Your task to perform on an android device: Go to privacy settings Image 0: 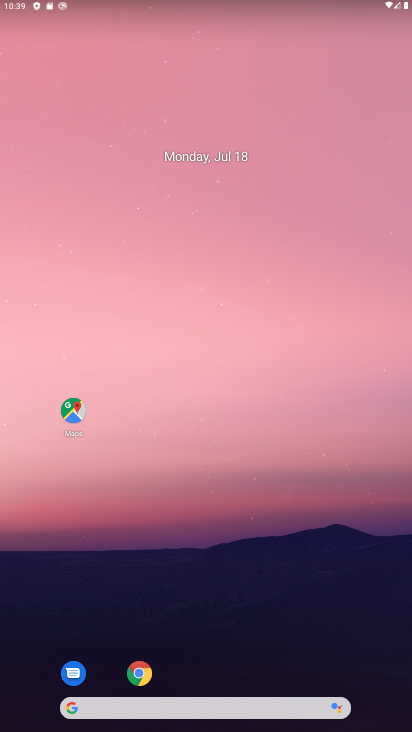
Step 0: press home button
Your task to perform on an android device: Go to privacy settings Image 1: 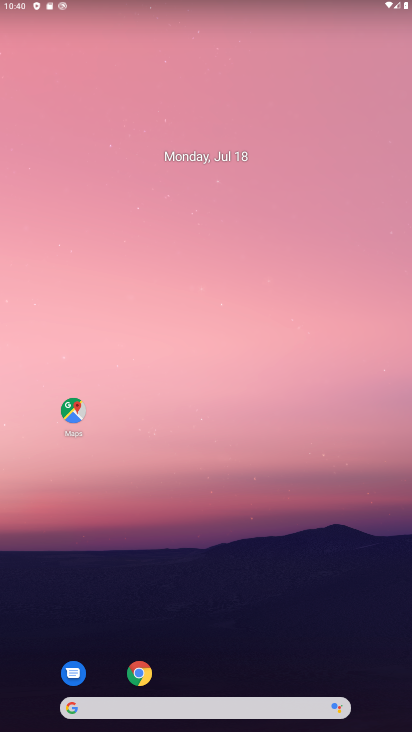
Step 1: click (228, 163)
Your task to perform on an android device: Go to privacy settings Image 2: 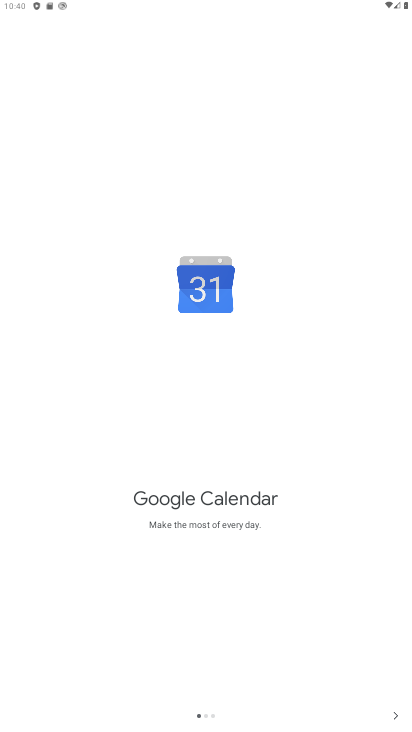
Step 2: click (397, 711)
Your task to perform on an android device: Go to privacy settings Image 3: 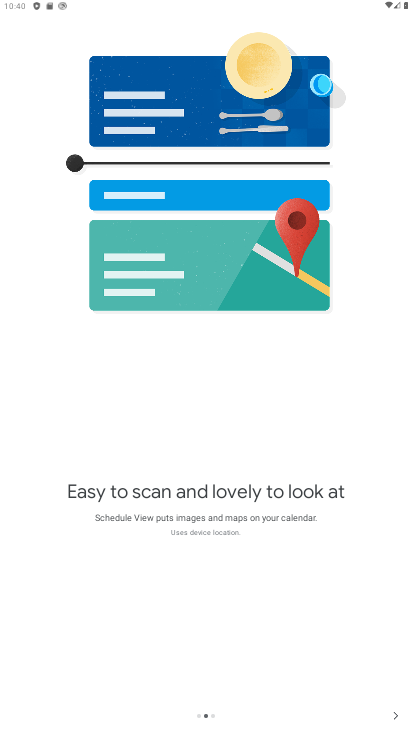
Step 3: click (389, 713)
Your task to perform on an android device: Go to privacy settings Image 4: 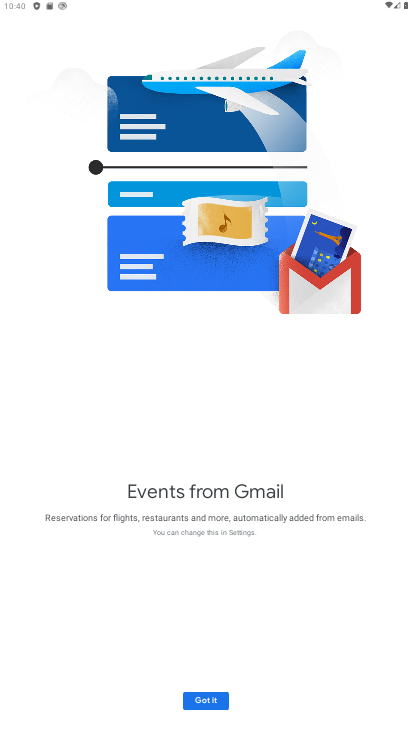
Step 4: click (202, 693)
Your task to perform on an android device: Go to privacy settings Image 5: 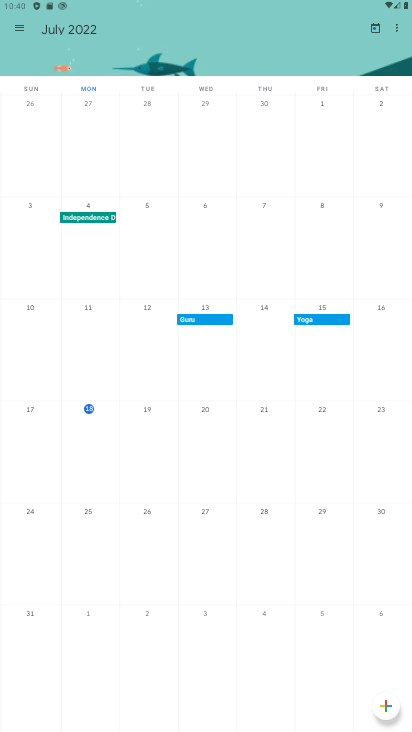
Step 5: press home button
Your task to perform on an android device: Go to privacy settings Image 6: 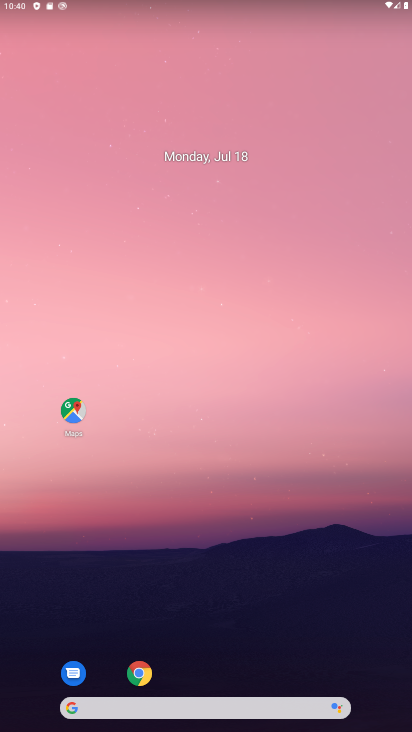
Step 6: drag from (242, 167) to (242, 74)
Your task to perform on an android device: Go to privacy settings Image 7: 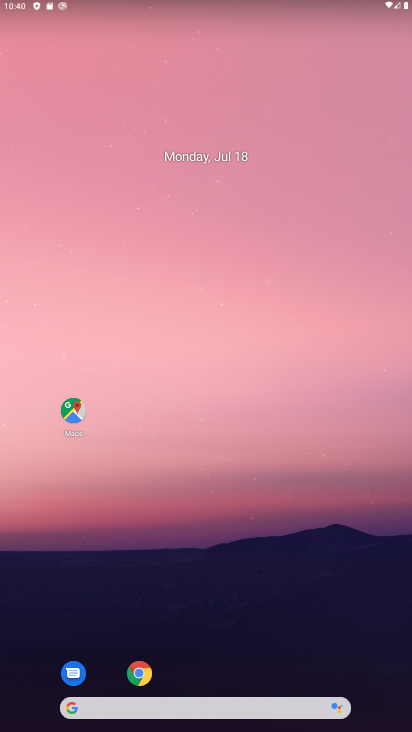
Step 7: drag from (221, 663) to (221, 4)
Your task to perform on an android device: Go to privacy settings Image 8: 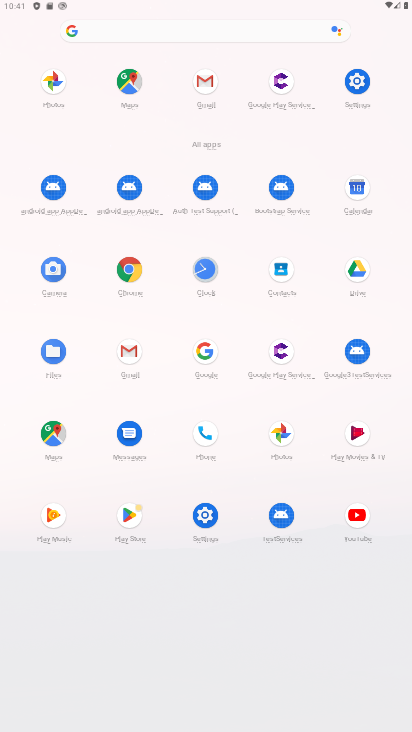
Step 8: click (203, 512)
Your task to perform on an android device: Go to privacy settings Image 9: 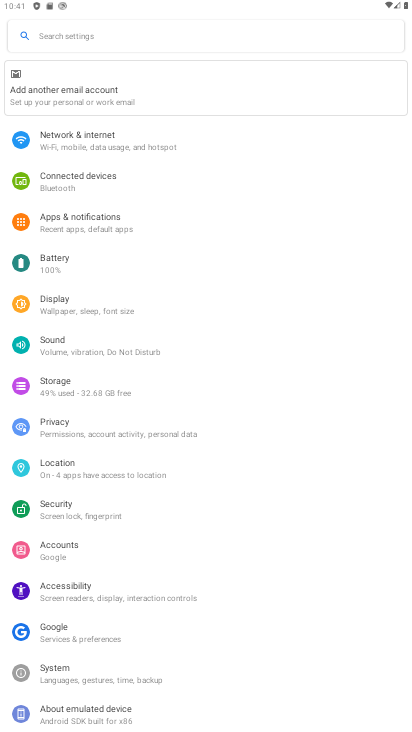
Step 9: click (68, 431)
Your task to perform on an android device: Go to privacy settings Image 10: 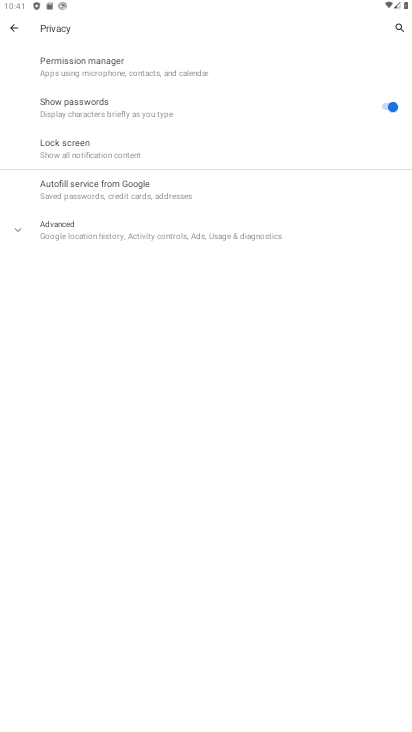
Step 10: click (36, 229)
Your task to perform on an android device: Go to privacy settings Image 11: 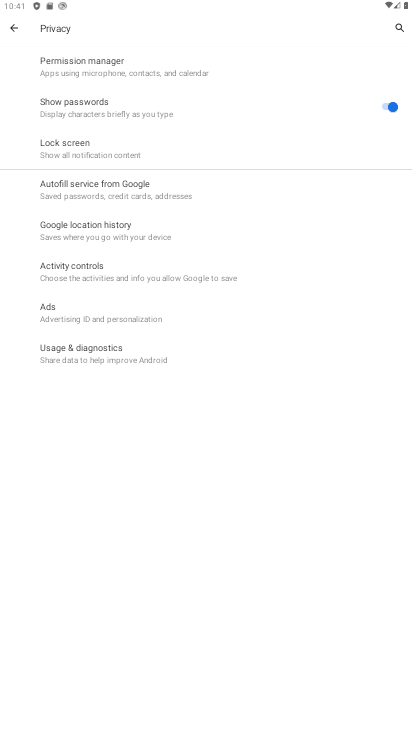
Step 11: task complete